Your task to perform on an android device: check android version Image 0: 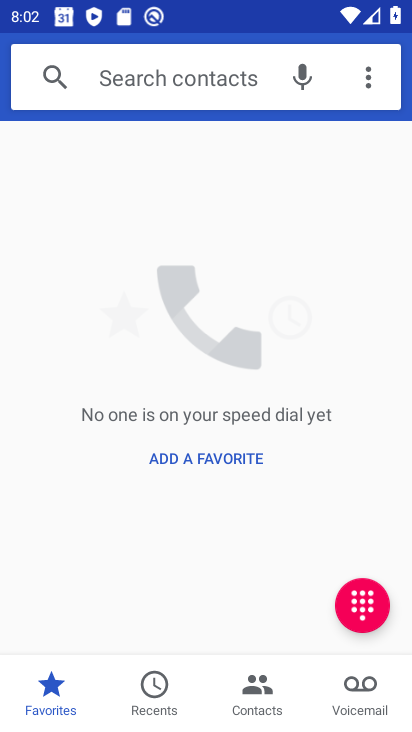
Step 0: press home button
Your task to perform on an android device: check android version Image 1: 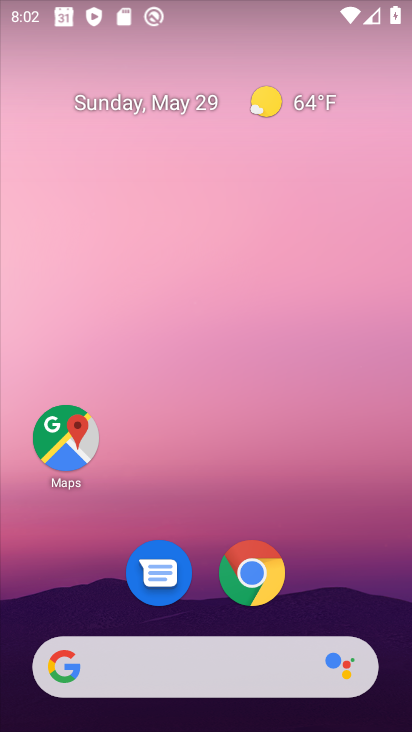
Step 1: drag from (99, 611) to (344, 111)
Your task to perform on an android device: check android version Image 2: 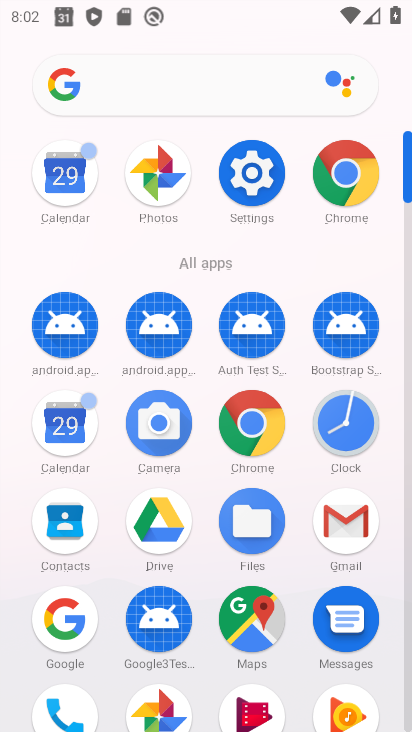
Step 2: drag from (249, 549) to (326, 265)
Your task to perform on an android device: check android version Image 3: 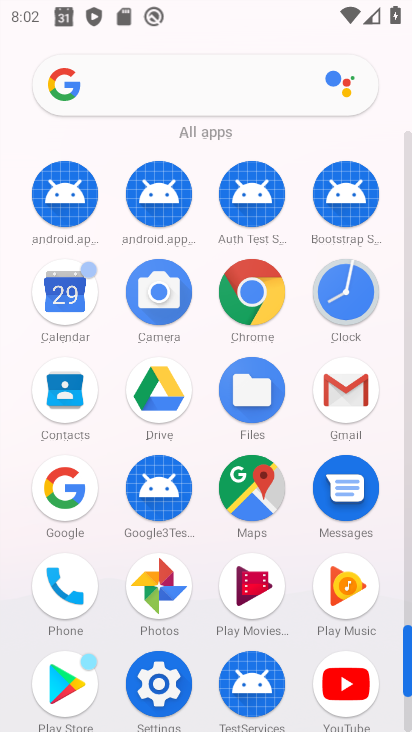
Step 3: drag from (188, 683) to (276, 378)
Your task to perform on an android device: check android version Image 4: 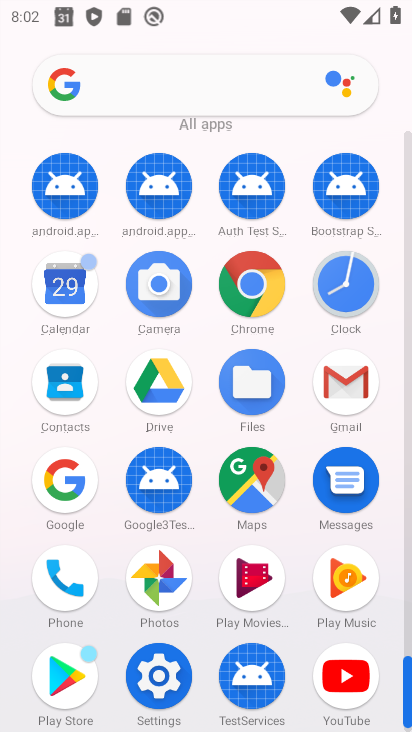
Step 4: click (157, 681)
Your task to perform on an android device: check android version Image 5: 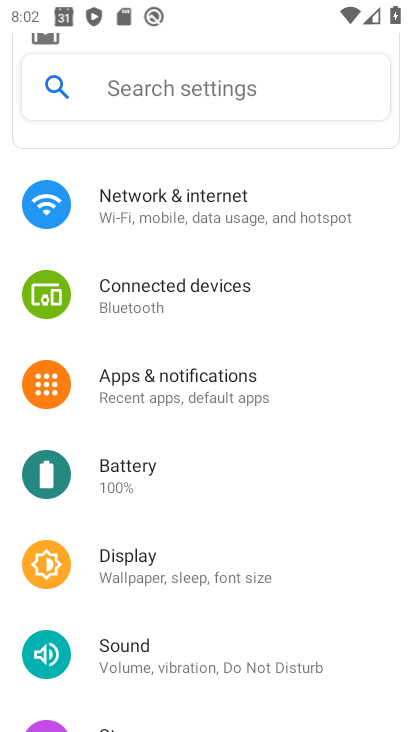
Step 5: drag from (170, 640) to (368, 68)
Your task to perform on an android device: check android version Image 6: 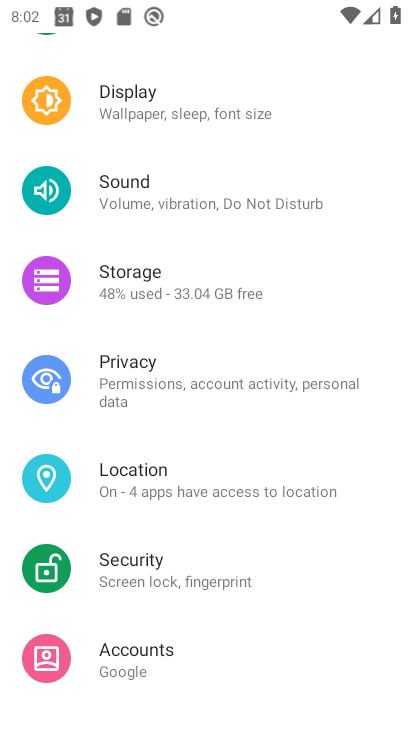
Step 6: drag from (156, 686) to (357, 63)
Your task to perform on an android device: check android version Image 7: 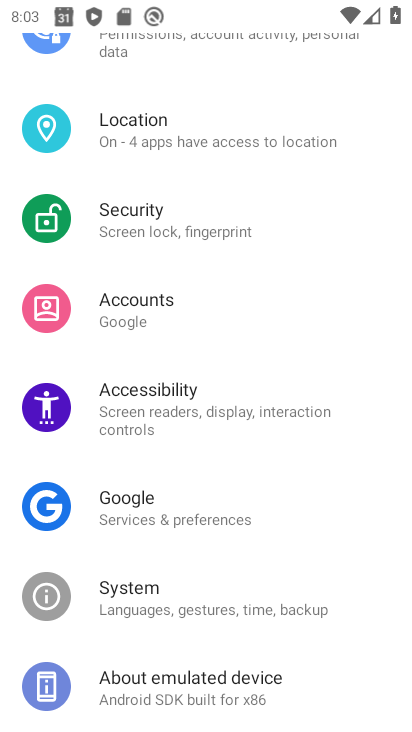
Step 7: click (181, 696)
Your task to perform on an android device: check android version Image 8: 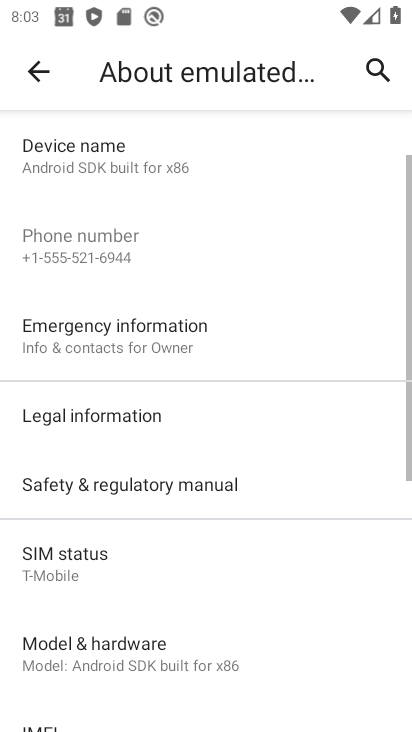
Step 8: drag from (206, 680) to (321, 392)
Your task to perform on an android device: check android version Image 9: 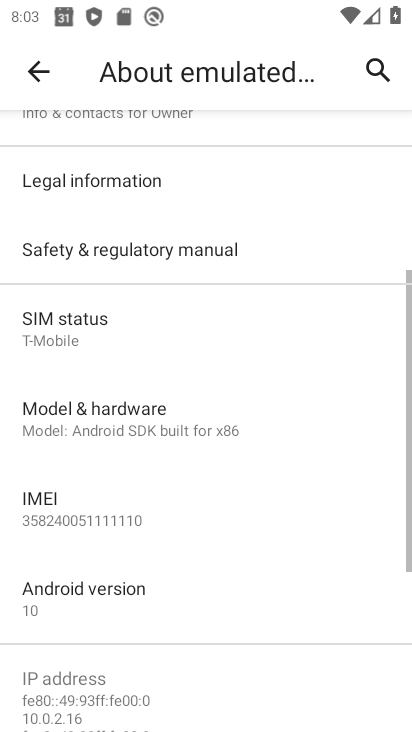
Step 9: click (205, 614)
Your task to perform on an android device: check android version Image 10: 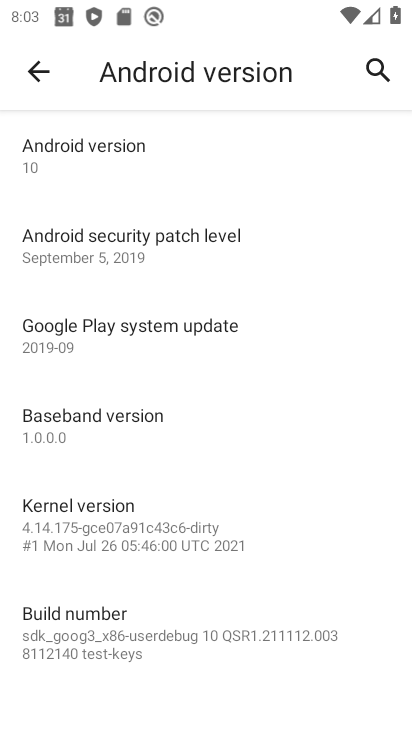
Step 10: click (212, 174)
Your task to perform on an android device: check android version Image 11: 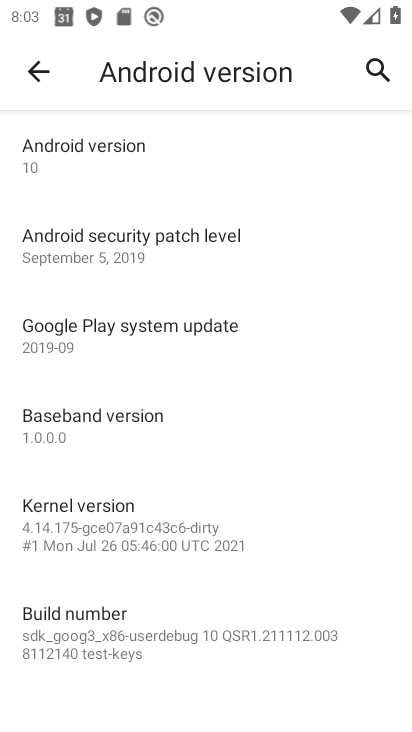
Step 11: task complete